Your task to perform on an android device: open app "Spotify" Image 0: 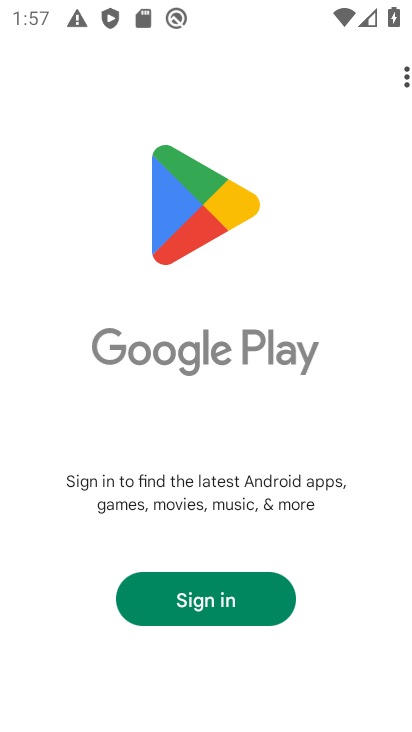
Step 0: click (194, 593)
Your task to perform on an android device: open app "Spotify" Image 1: 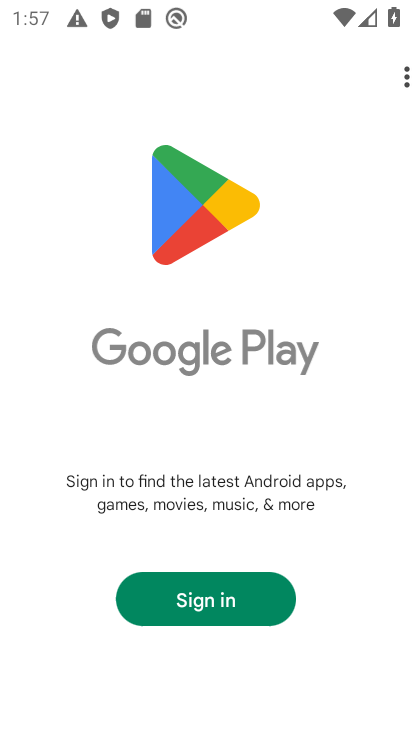
Step 1: press home button
Your task to perform on an android device: open app "Spotify" Image 2: 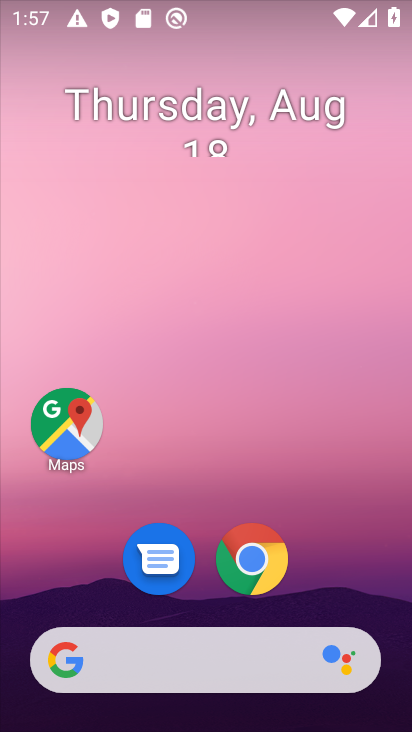
Step 2: drag from (181, 471) to (250, 18)
Your task to perform on an android device: open app "Spotify" Image 3: 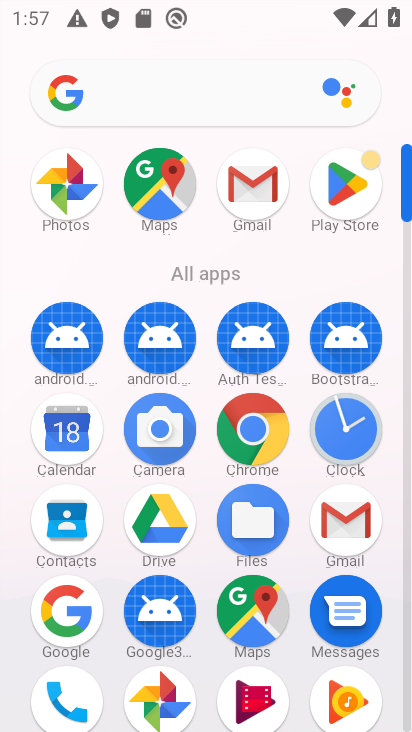
Step 3: click (341, 203)
Your task to perform on an android device: open app "Spotify" Image 4: 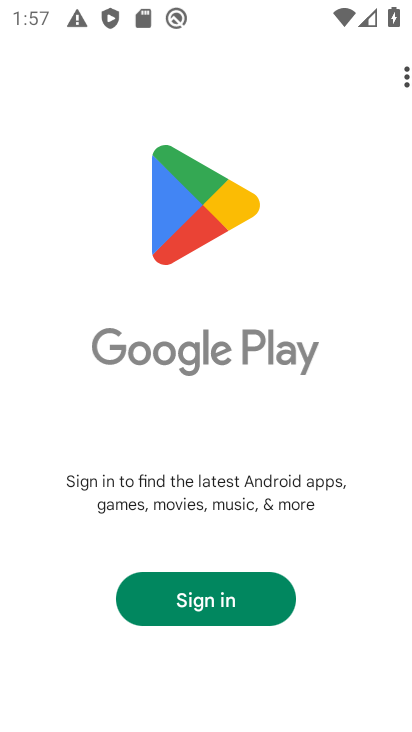
Step 4: click (193, 597)
Your task to perform on an android device: open app "Spotify" Image 5: 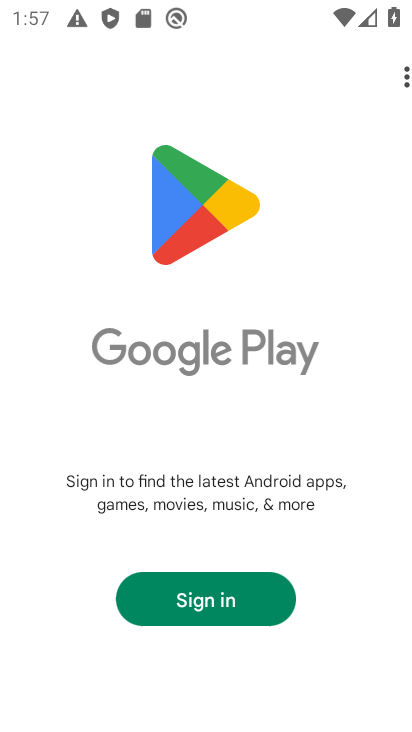
Step 5: click (232, 604)
Your task to perform on an android device: open app "Spotify" Image 6: 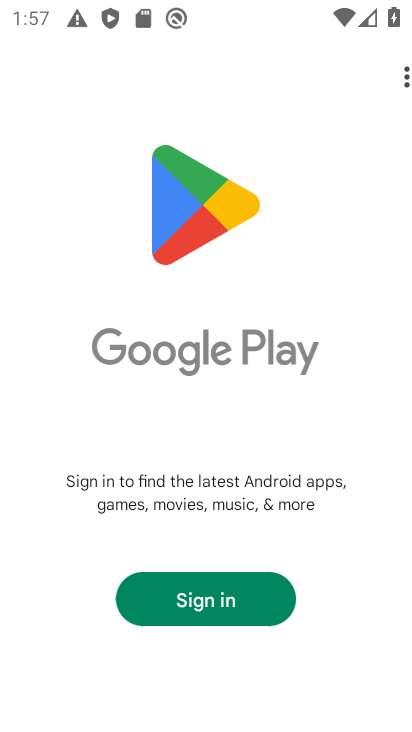
Step 6: click (206, 607)
Your task to perform on an android device: open app "Spotify" Image 7: 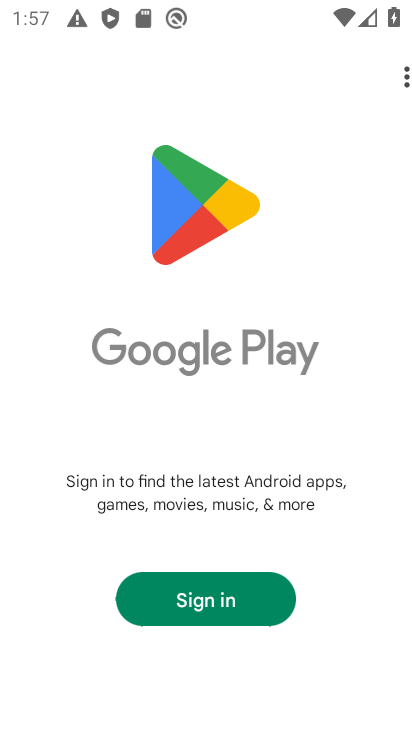
Step 7: task complete